Your task to perform on an android device: Search for "dell xps" on bestbuy, select the first entry, and add it to the cart. Image 0: 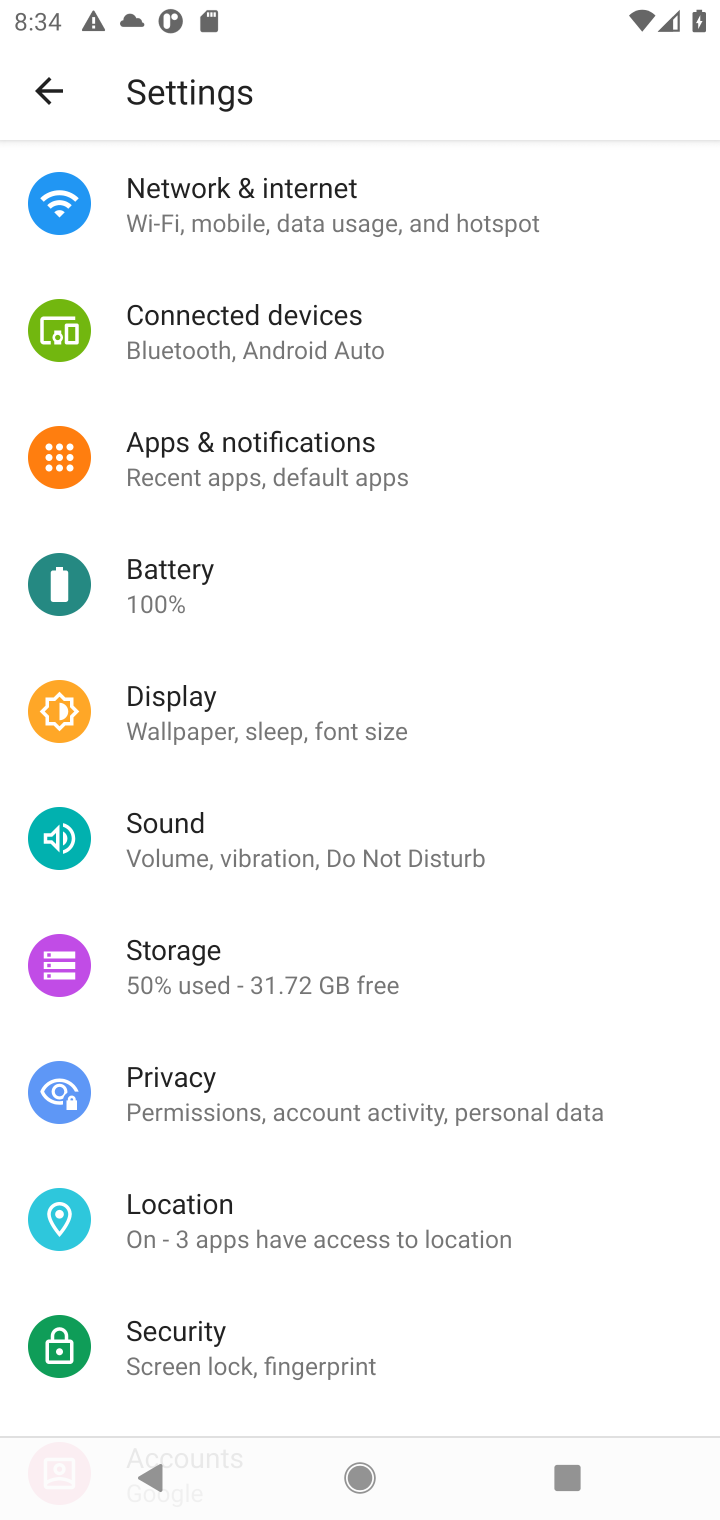
Step 0: press home button
Your task to perform on an android device: Search for "dell xps" on bestbuy, select the first entry, and add it to the cart. Image 1: 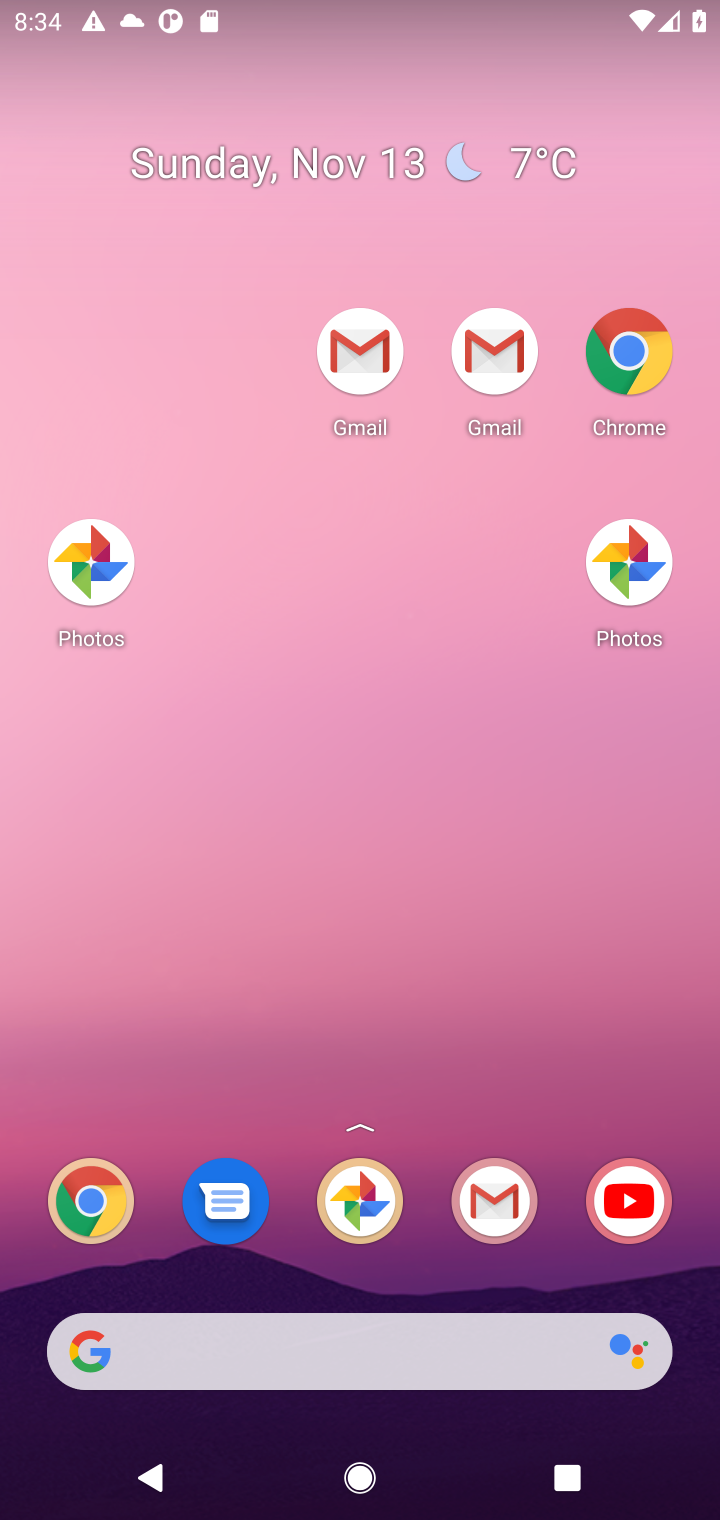
Step 1: drag from (418, 1284) to (410, 234)
Your task to perform on an android device: Search for "dell xps" on bestbuy, select the first entry, and add it to the cart. Image 2: 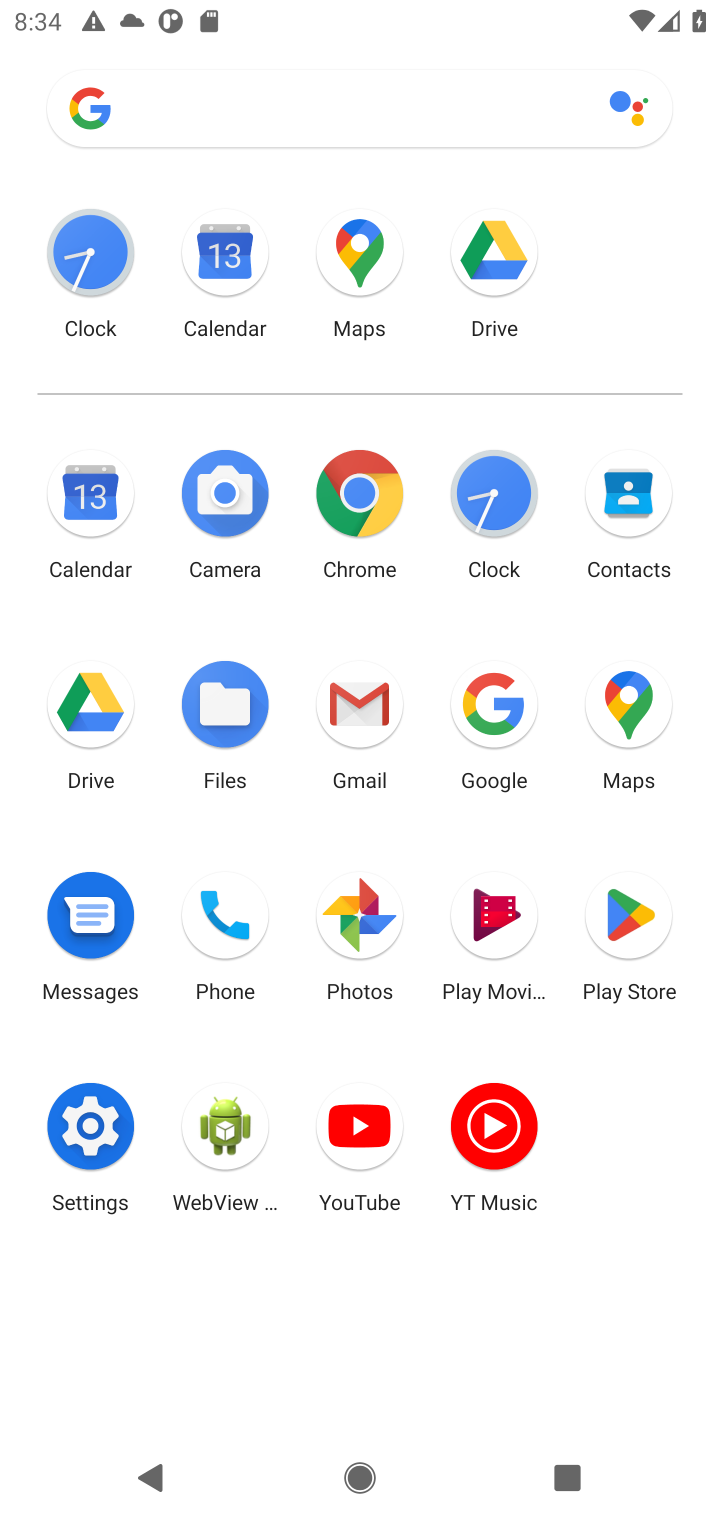
Step 2: click (357, 495)
Your task to perform on an android device: Search for "dell xps" on bestbuy, select the first entry, and add it to the cart. Image 3: 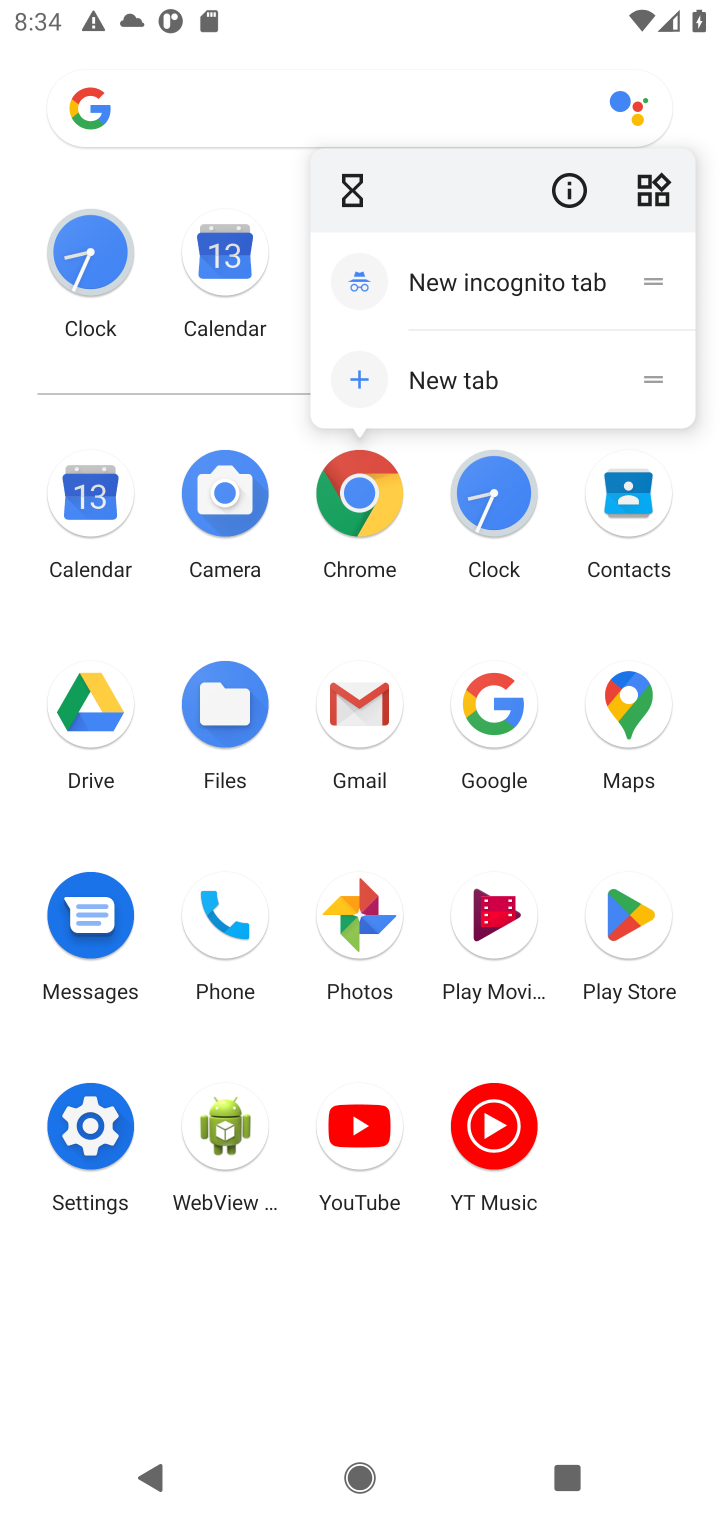
Step 3: click (371, 486)
Your task to perform on an android device: Search for "dell xps" on bestbuy, select the first entry, and add it to the cart. Image 4: 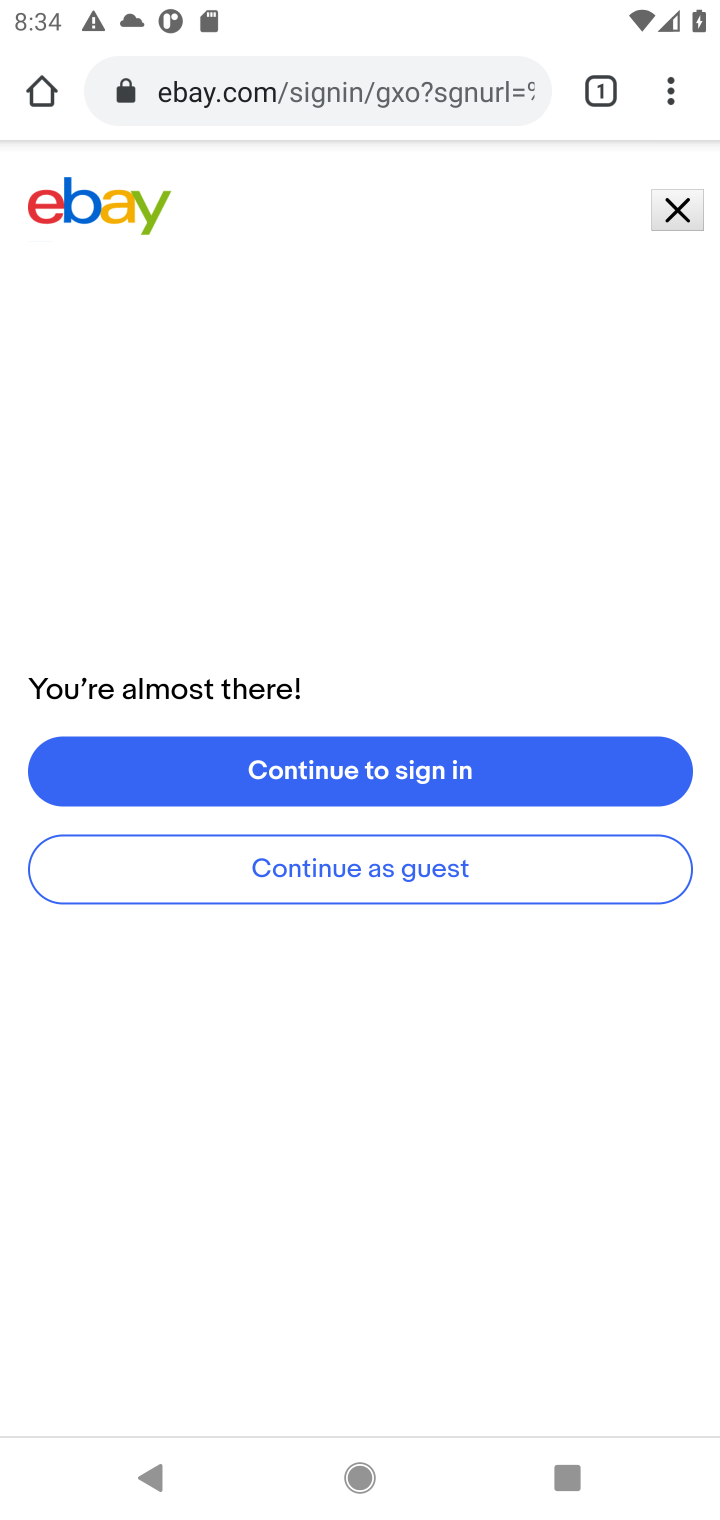
Step 4: click (363, 82)
Your task to perform on an android device: Search for "dell xps" on bestbuy, select the first entry, and add it to the cart. Image 5: 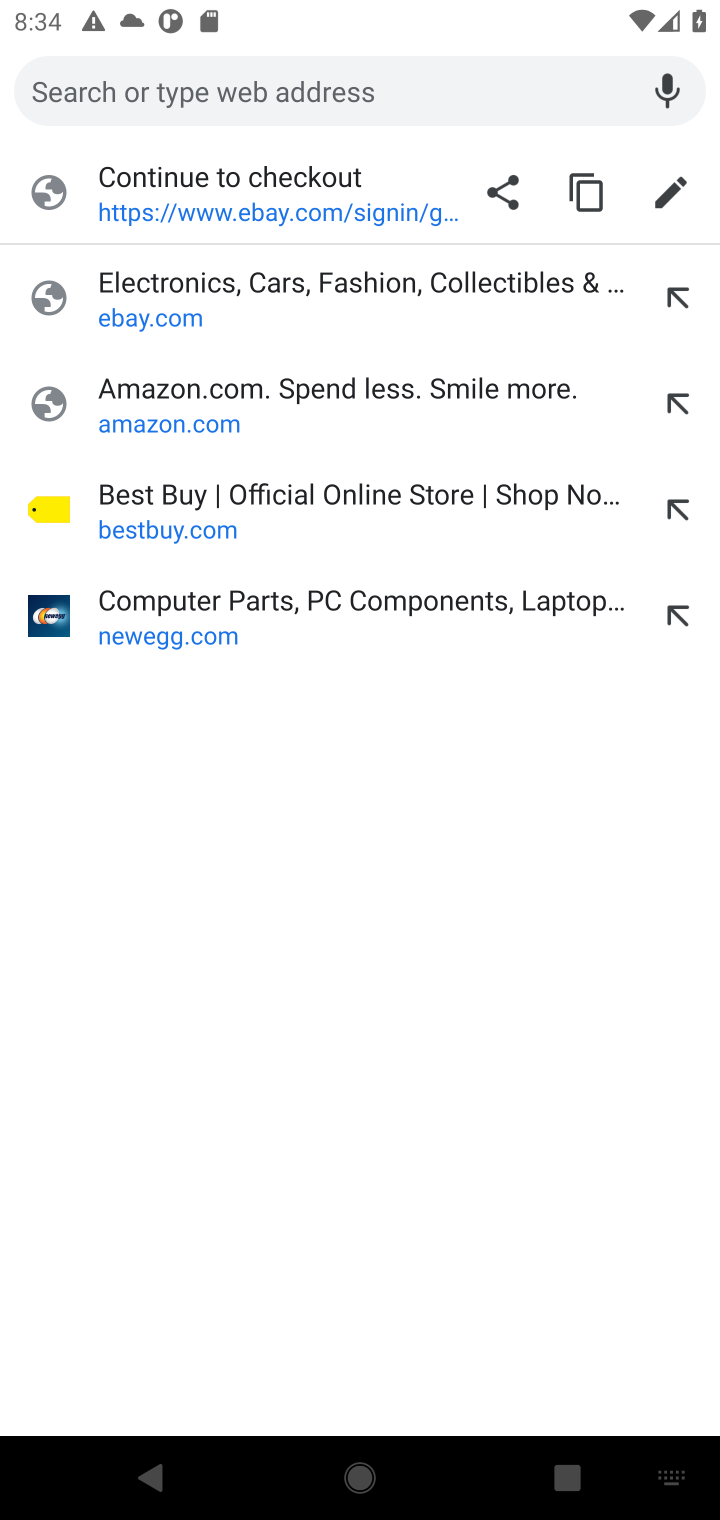
Step 5: type "bestbuy.com"
Your task to perform on an android device: Search for "dell xps" on bestbuy, select the first entry, and add it to the cart. Image 6: 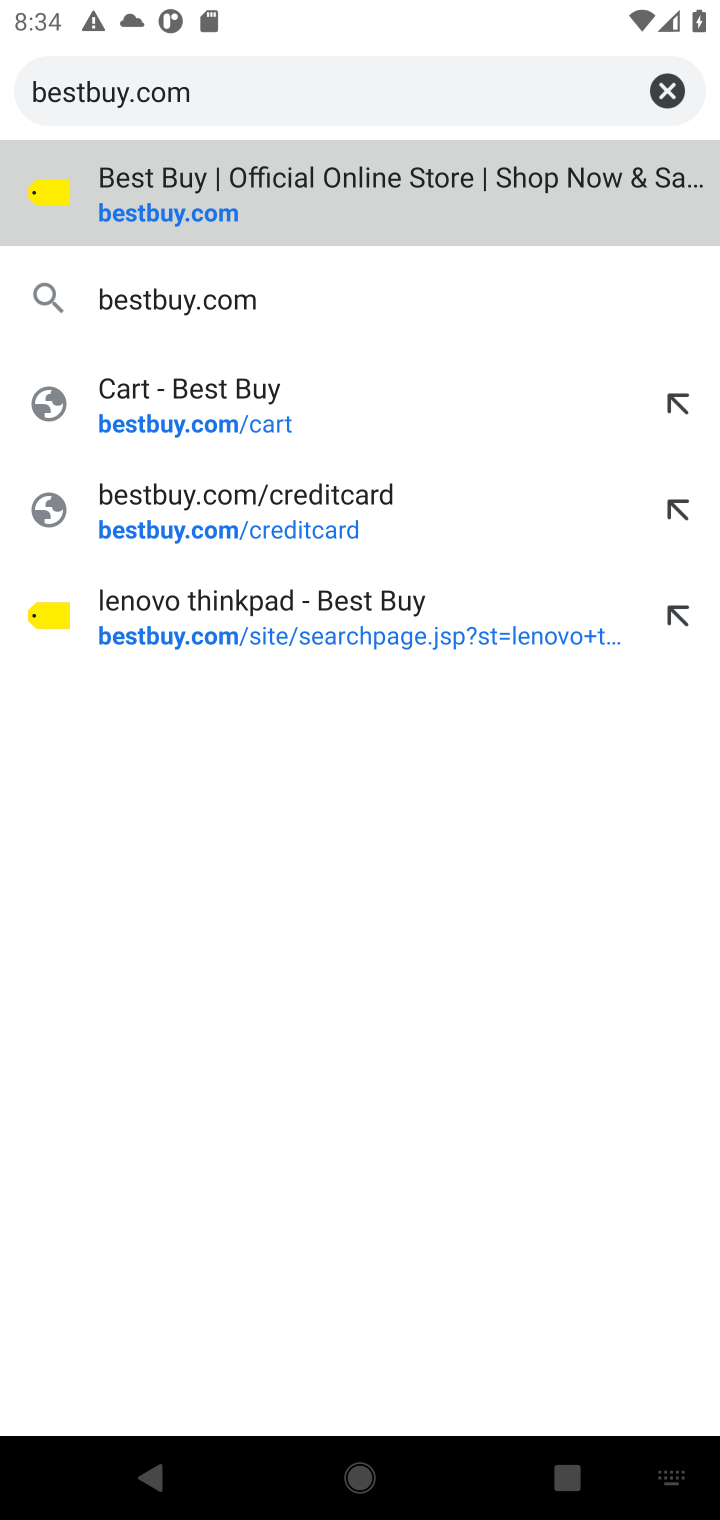
Step 6: press enter
Your task to perform on an android device: Search for "dell xps" on bestbuy, select the first entry, and add it to the cart. Image 7: 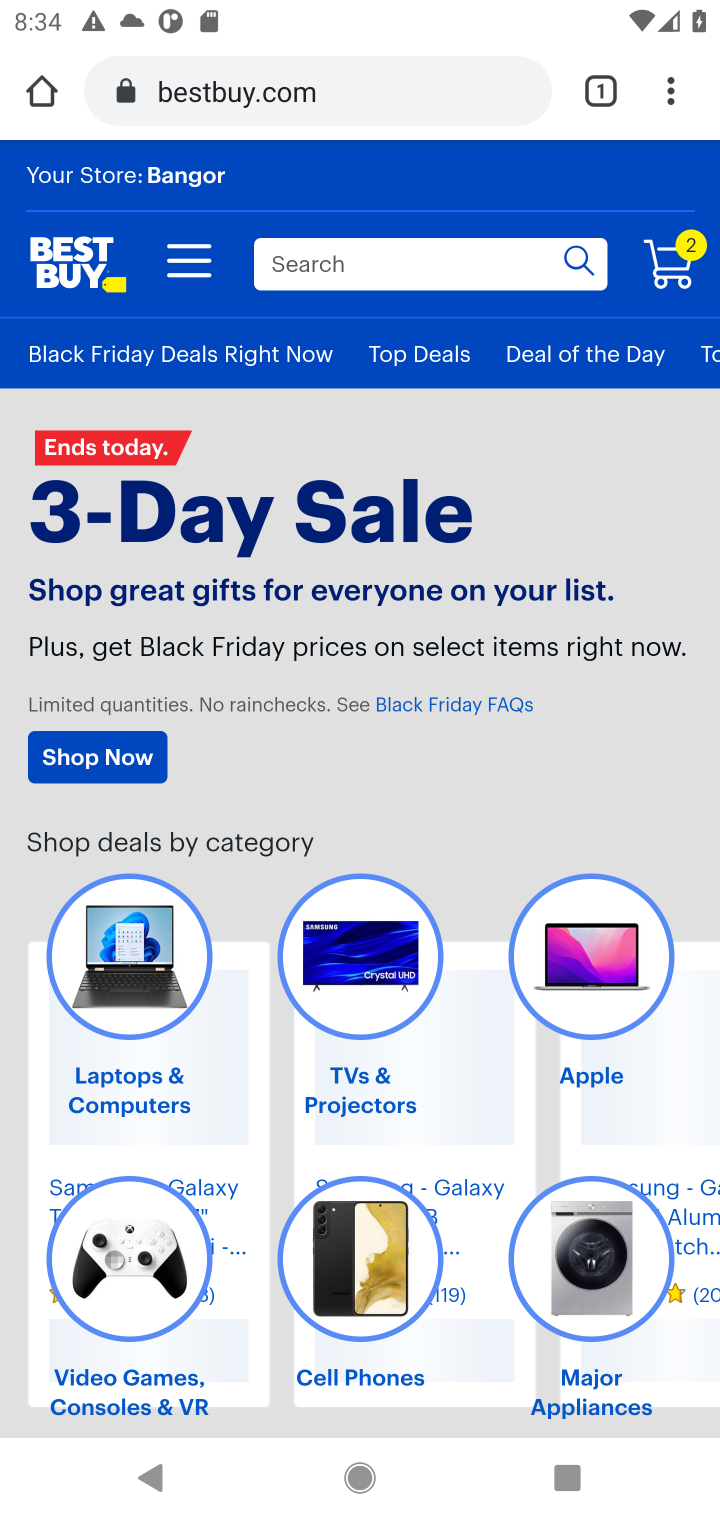
Step 7: click (428, 273)
Your task to perform on an android device: Search for "dell xps" on bestbuy, select the first entry, and add it to the cart. Image 8: 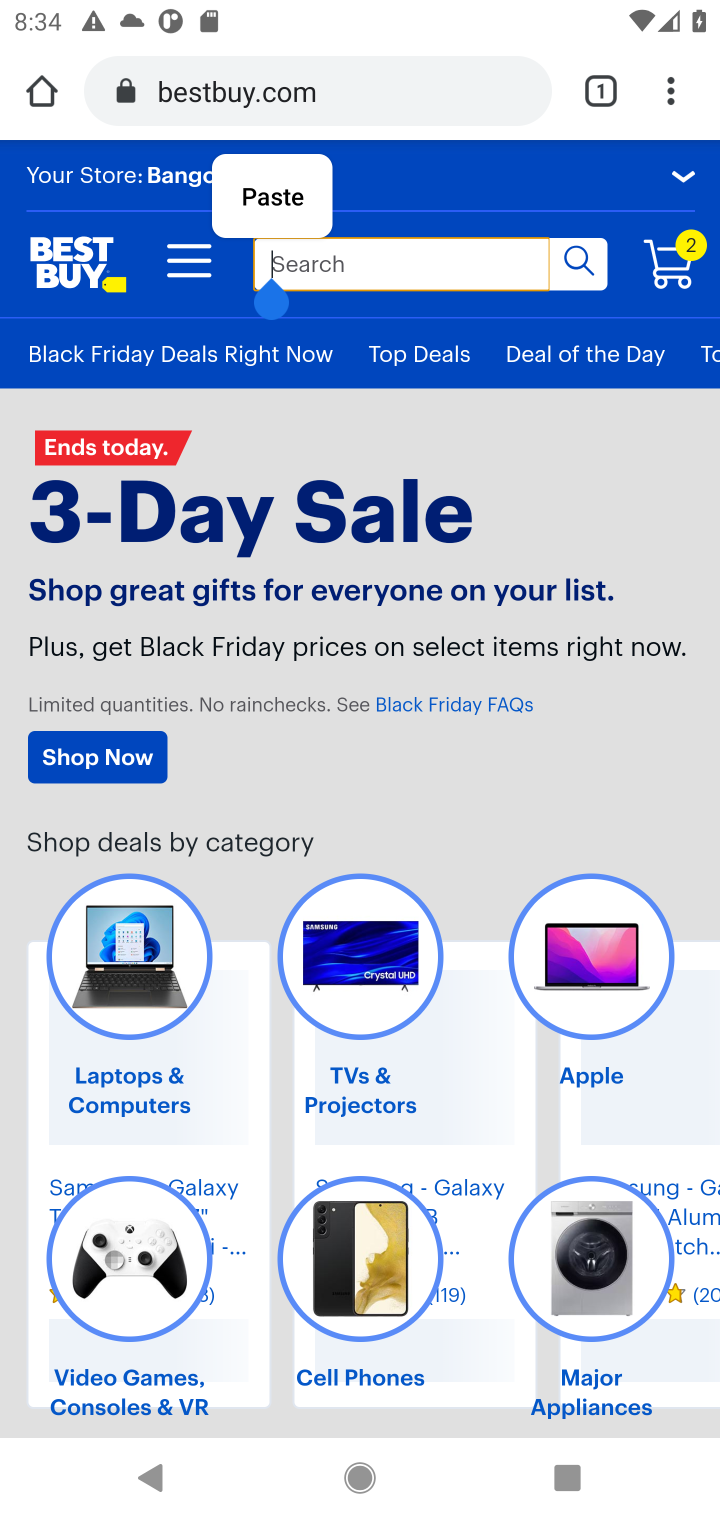
Step 8: click (347, 273)
Your task to perform on an android device: Search for "dell xps" on bestbuy, select the first entry, and add it to the cart. Image 9: 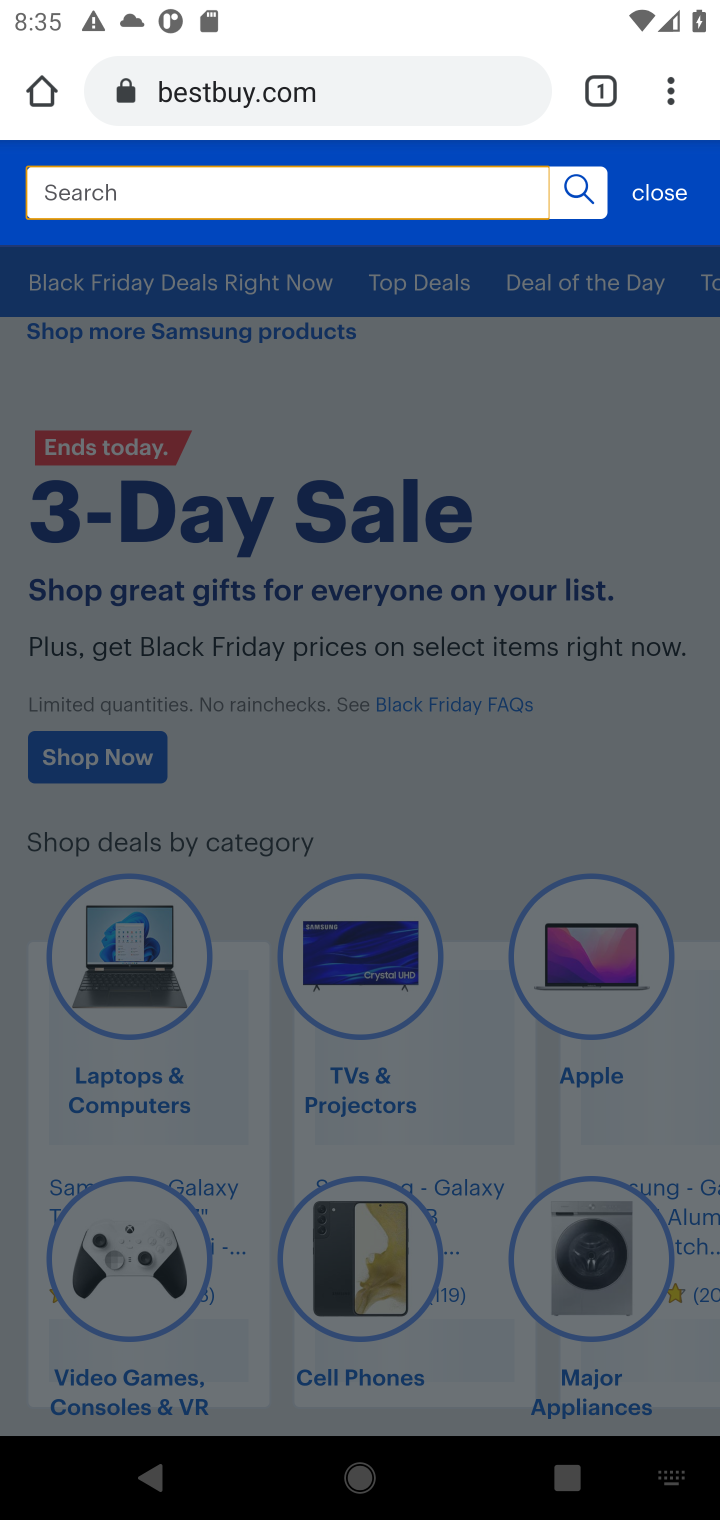
Step 9: type "dell xps"
Your task to perform on an android device: Search for "dell xps" on bestbuy, select the first entry, and add it to the cart. Image 10: 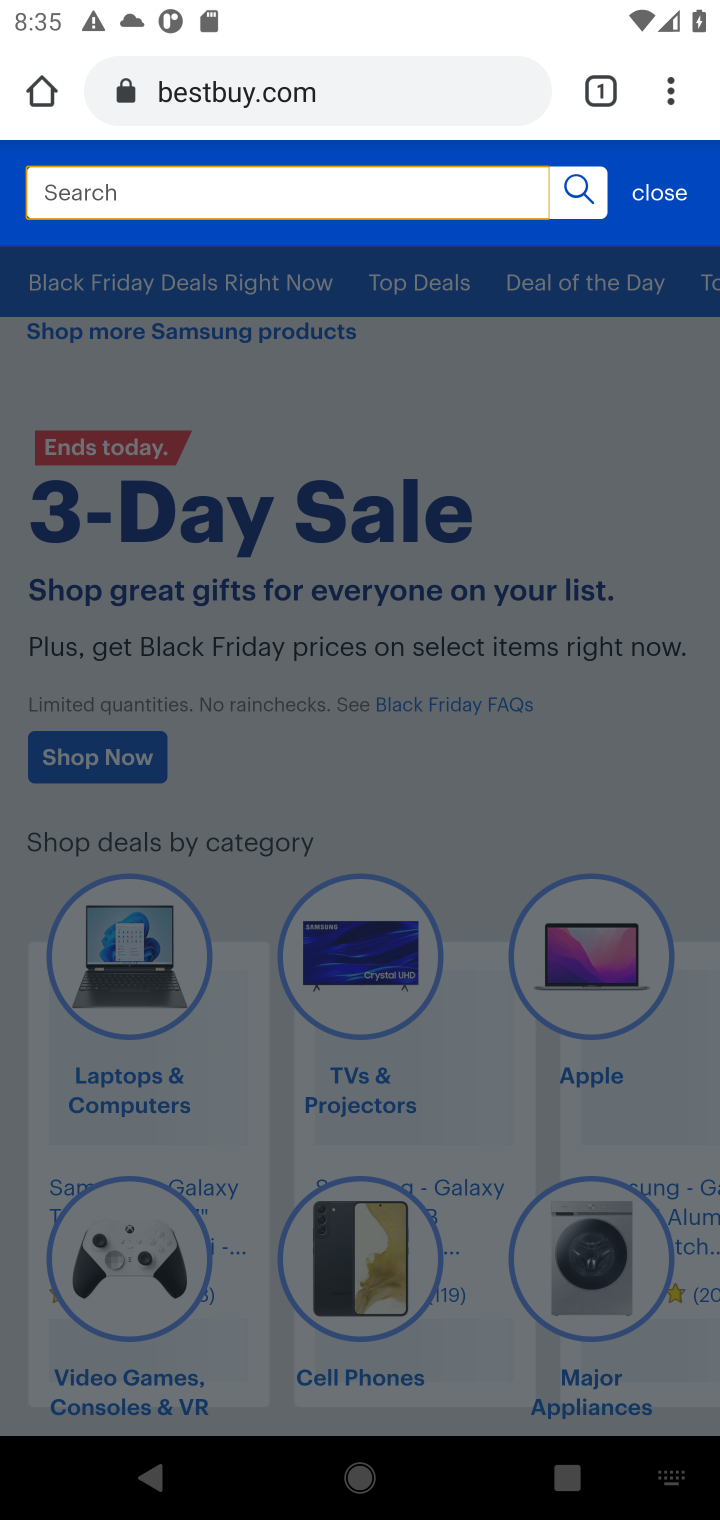
Step 10: press enter
Your task to perform on an android device: Search for "dell xps" on bestbuy, select the first entry, and add it to the cart. Image 11: 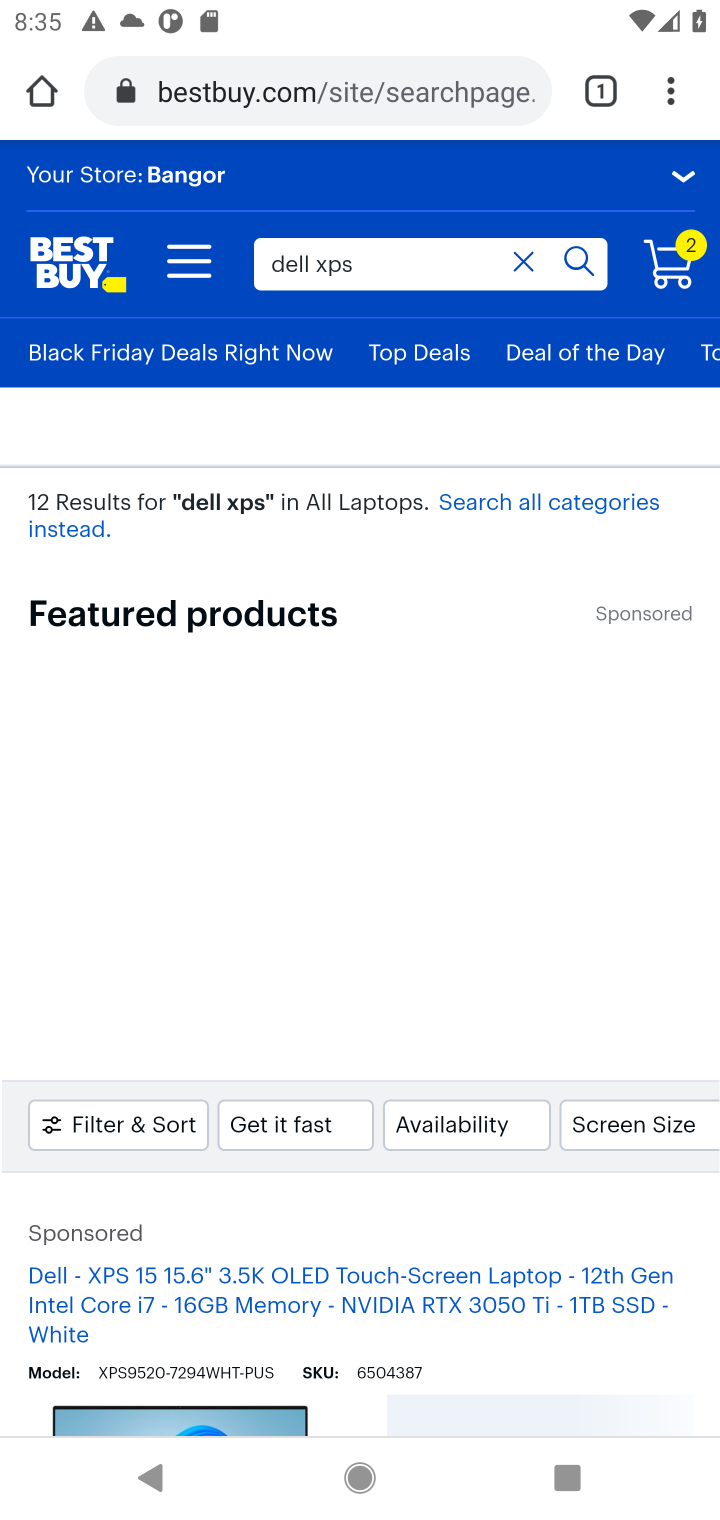
Step 11: drag from (440, 1259) to (400, 742)
Your task to perform on an android device: Search for "dell xps" on bestbuy, select the first entry, and add it to the cart. Image 12: 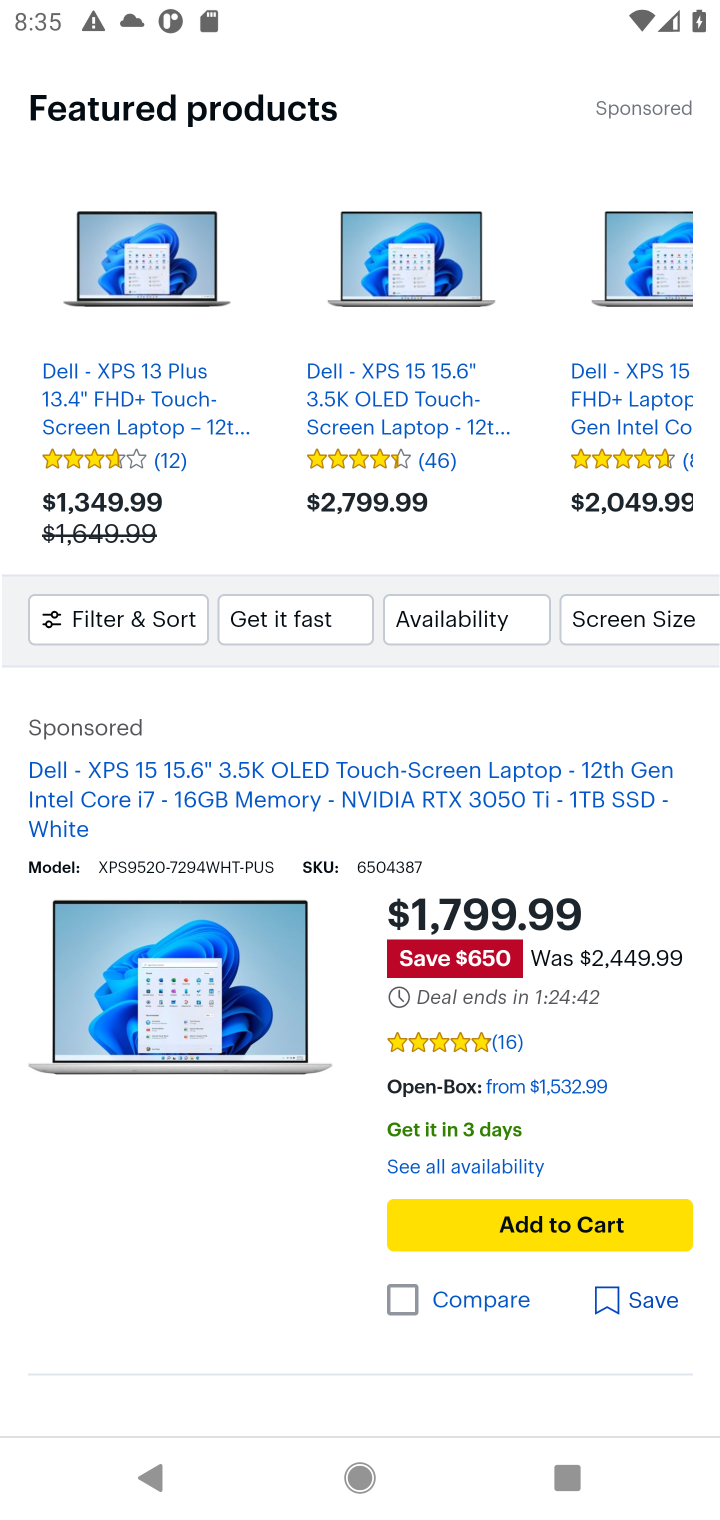
Step 12: drag from (269, 1039) to (267, 817)
Your task to perform on an android device: Search for "dell xps" on bestbuy, select the first entry, and add it to the cart. Image 13: 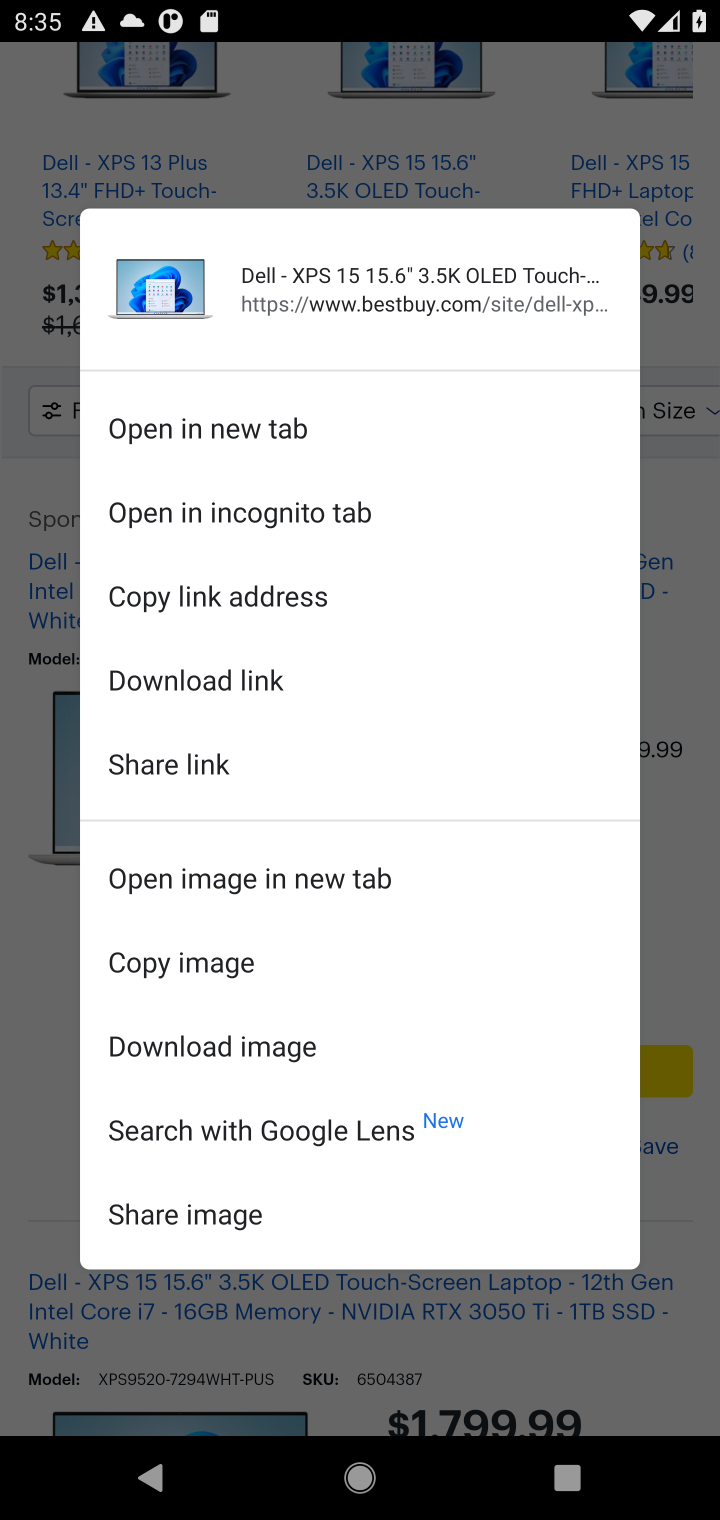
Step 13: click (46, 1107)
Your task to perform on an android device: Search for "dell xps" on bestbuy, select the first entry, and add it to the cart. Image 14: 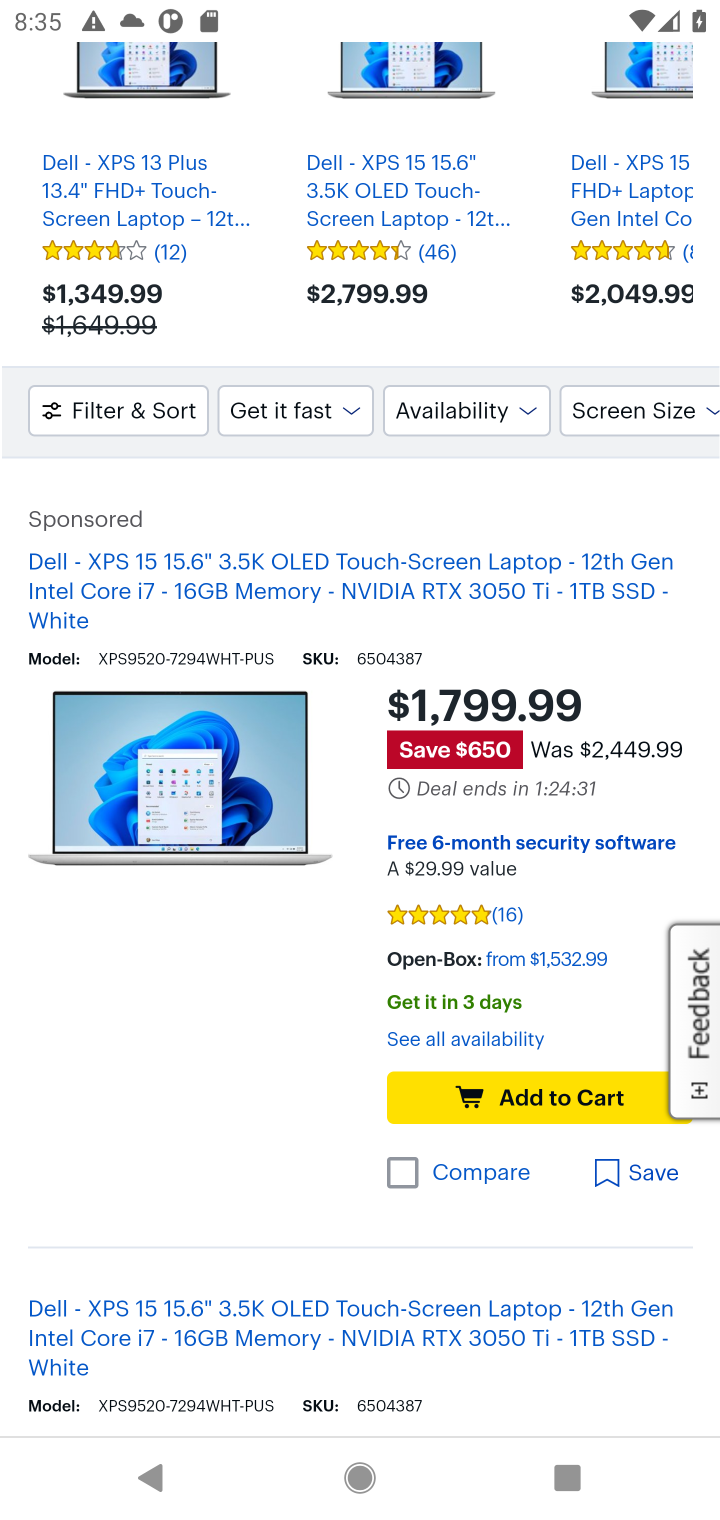
Step 14: drag from (296, 1343) to (326, 751)
Your task to perform on an android device: Search for "dell xps" on bestbuy, select the first entry, and add it to the cart. Image 15: 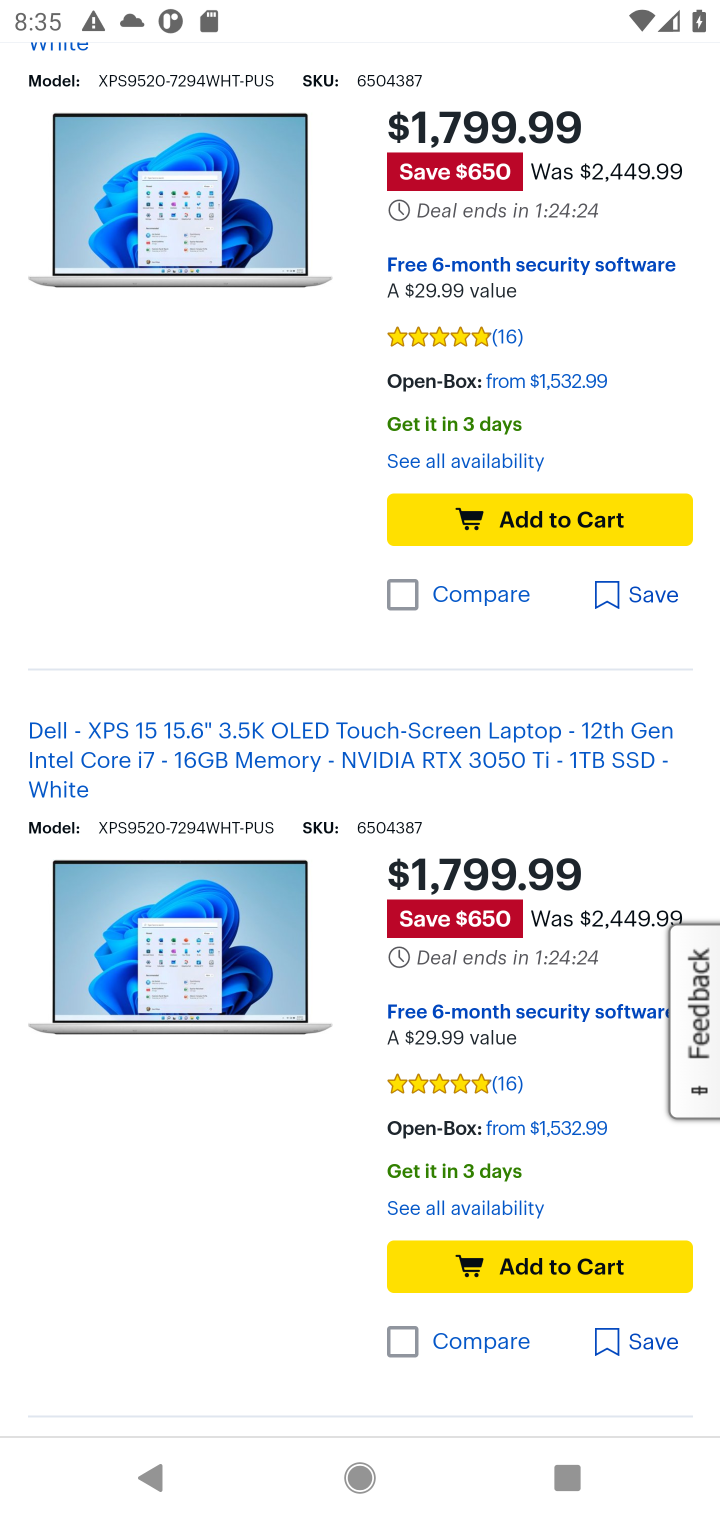
Step 15: click (506, 1268)
Your task to perform on an android device: Search for "dell xps" on bestbuy, select the first entry, and add it to the cart. Image 16: 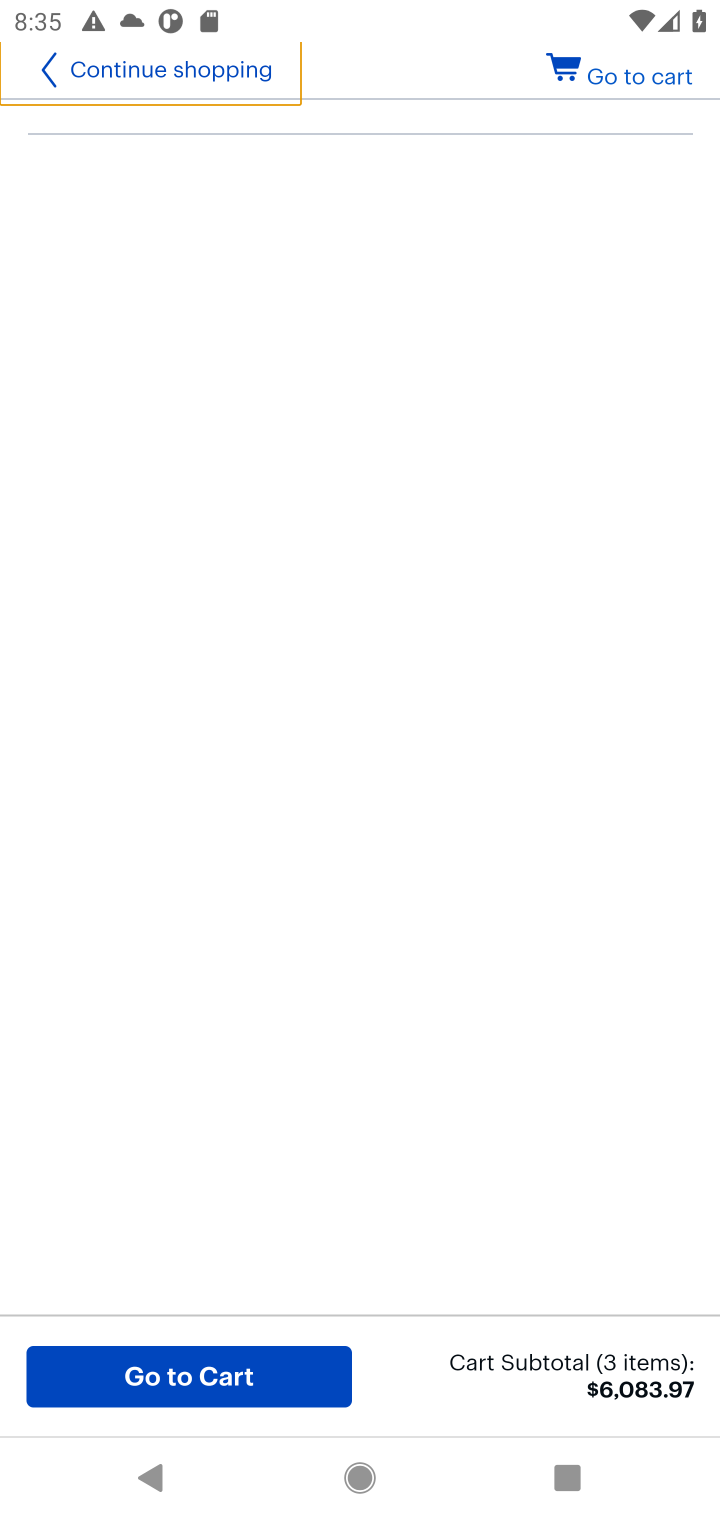
Step 16: task complete